Your task to perform on an android device: turn off translation in the chrome app Image 0: 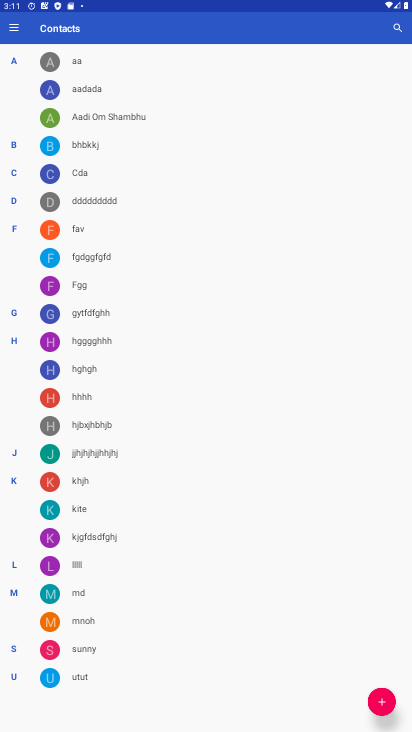
Step 0: press home button
Your task to perform on an android device: turn off translation in the chrome app Image 1: 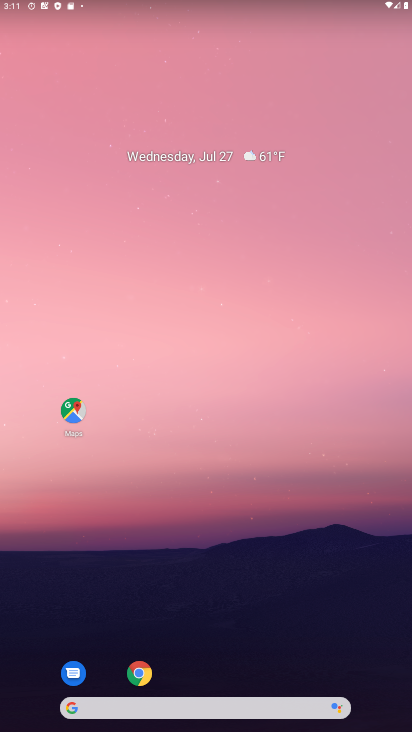
Step 1: click (144, 677)
Your task to perform on an android device: turn off translation in the chrome app Image 2: 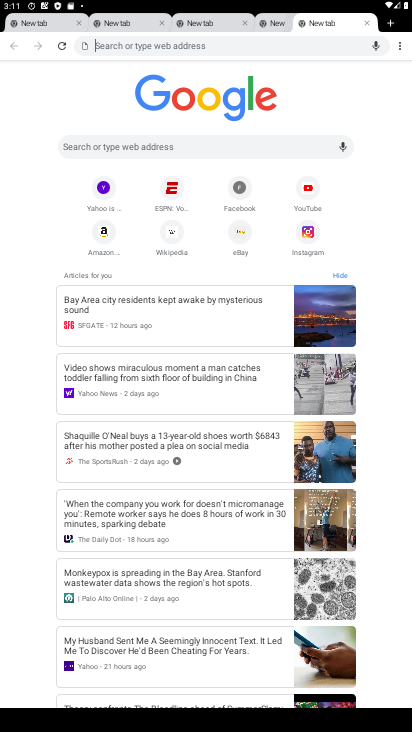
Step 2: click (398, 40)
Your task to perform on an android device: turn off translation in the chrome app Image 3: 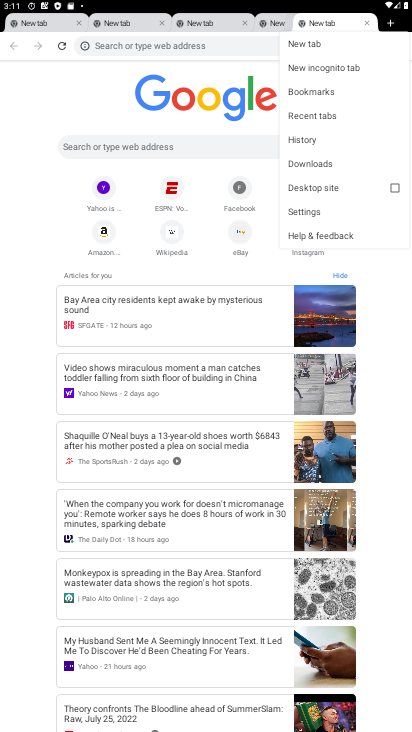
Step 3: click (319, 215)
Your task to perform on an android device: turn off translation in the chrome app Image 4: 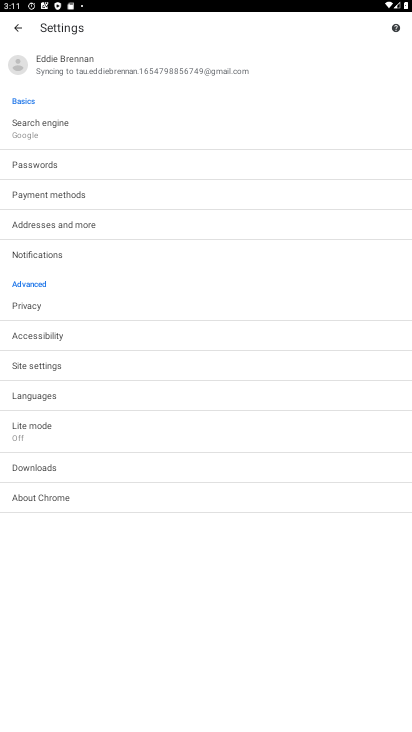
Step 4: click (51, 397)
Your task to perform on an android device: turn off translation in the chrome app Image 5: 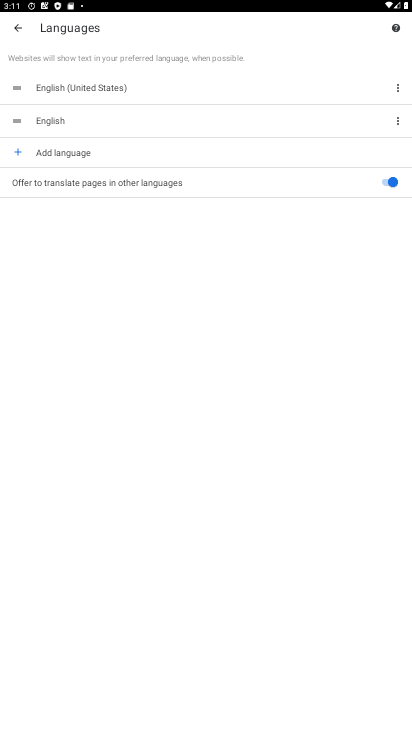
Step 5: task complete